Your task to perform on an android device: open a bookmark in the chrome app Image 0: 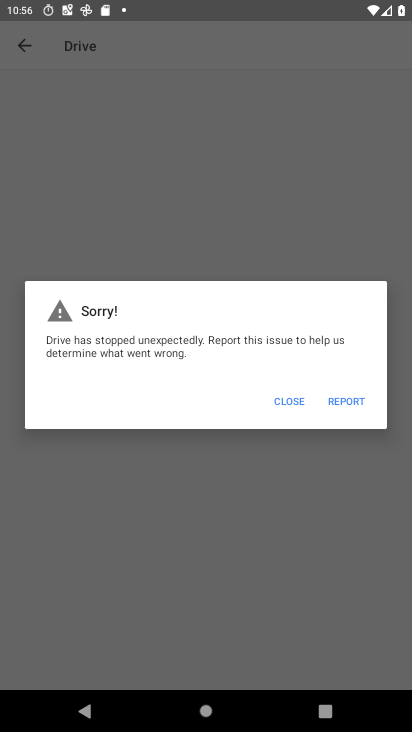
Step 0: drag from (221, 486) to (147, 116)
Your task to perform on an android device: open a bookmark in the chrome app Image 1: 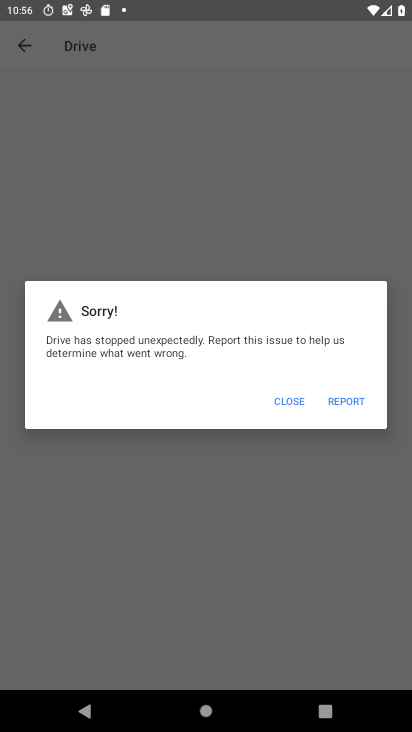
Step 1: click (284, 404)
Your task to perform on an android device: open a bookmark in the chrome app Image 2: 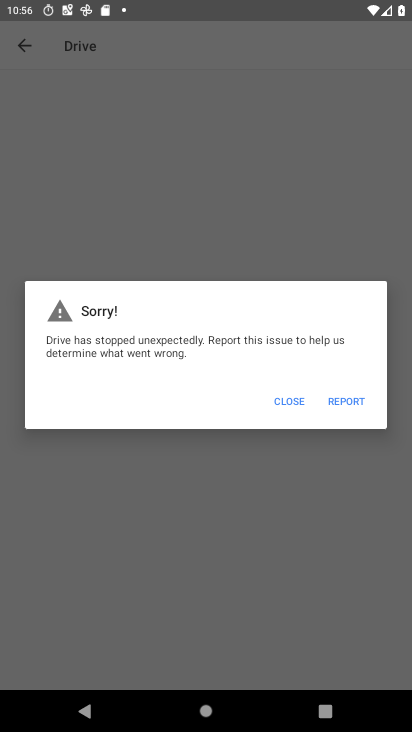
Step 2: click (287, 402)
Your task to perform on an android device: open a bookmark in the chrome app Image 3: 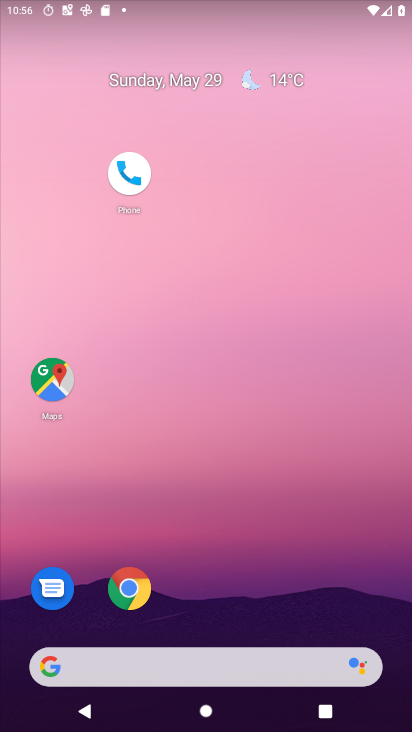
Step 3: drag from (274, 685) to (159, 188)
Your task to perform on an android device: open a bookmark in the chrome app Image 4: 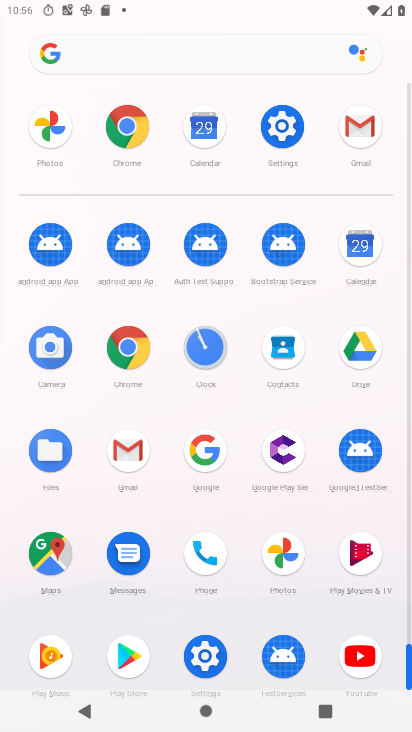
Step 4: click (114, 142)
Your task to perform on an android device: open a bookmark in the chrome app Image 5: 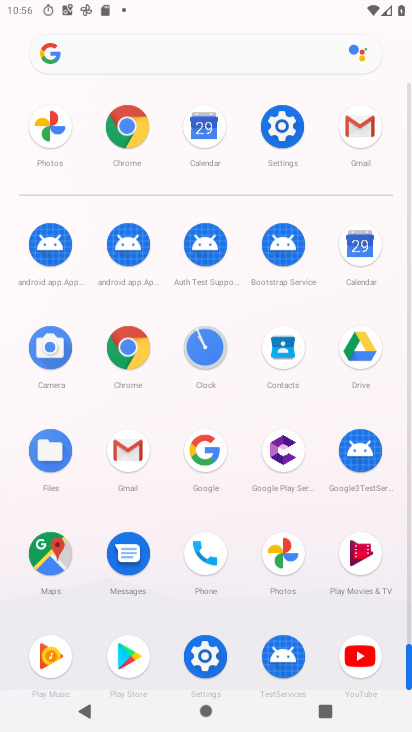
Step 5: click (120, 126)
Your task to perform on an android device: open a bookmark in the chrome app Image 6: 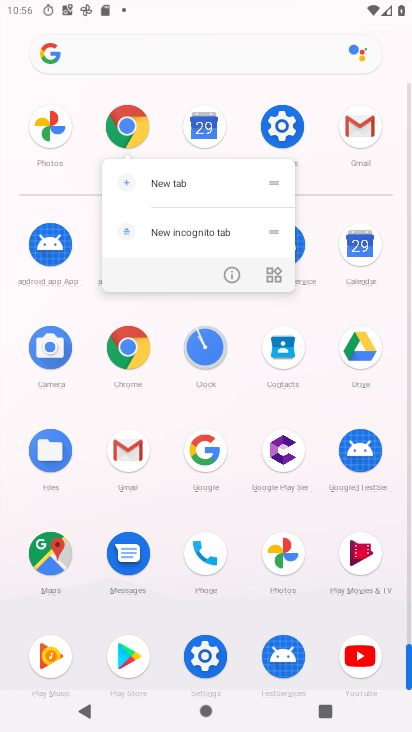
Step 6: click (131, 138)
Your task to perform on an android device: open a bookmark in the chrome app Image 7: 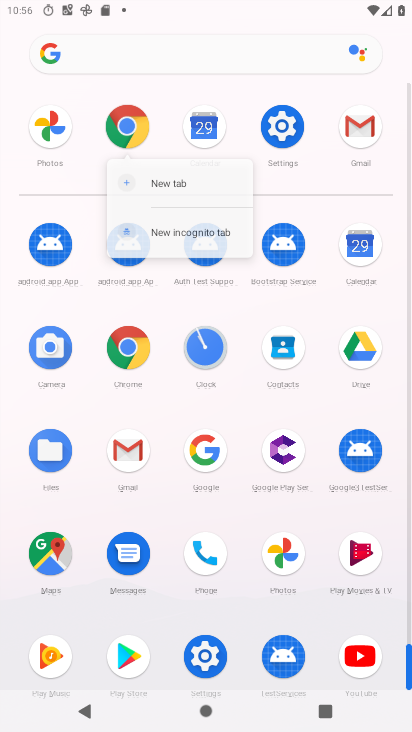
Step 7: click (131, 138)
Your task to perform on an android device: open a bookmark in the chrome app Image 8: 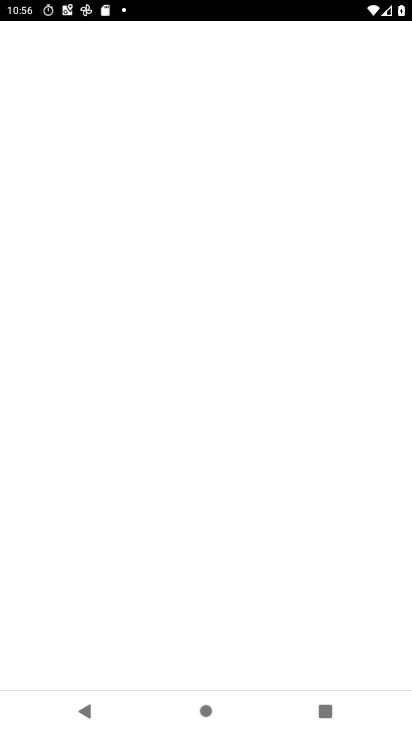
Step 8: click (131, 138)
Your task to perform on an android device: open a bookmark in the chrome app Image 9: 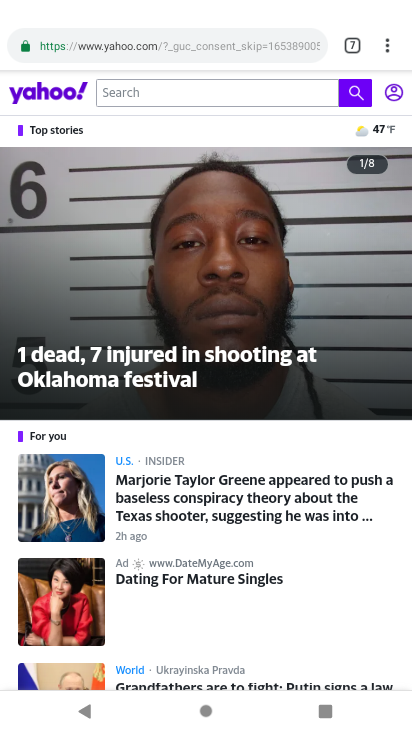
Step 9: click (132, 137)
Your task to perform on an android device: open a bookmark in the chrome app Image 10: 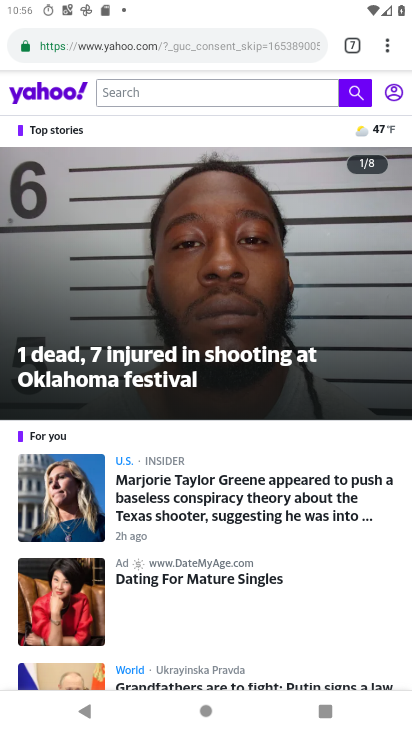
Step 10: drag from (388, 44) to (401, 270)
Your task to perform on an android device: open a bookmark in the chrome app Image 11: 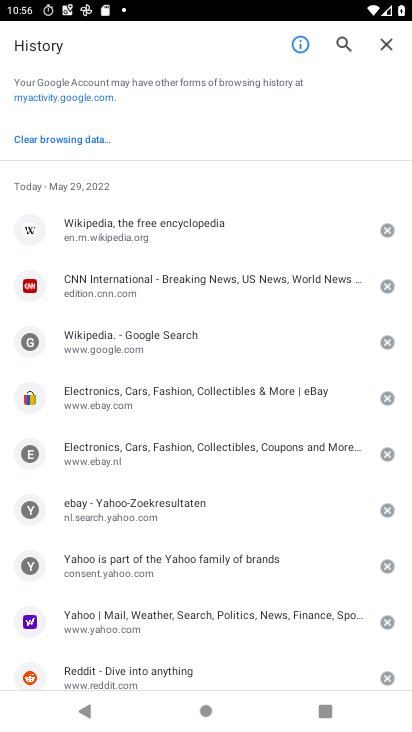
Step 11: press back button
Your task to perform on an android device: open a bookmark in the chrome app Image 12: 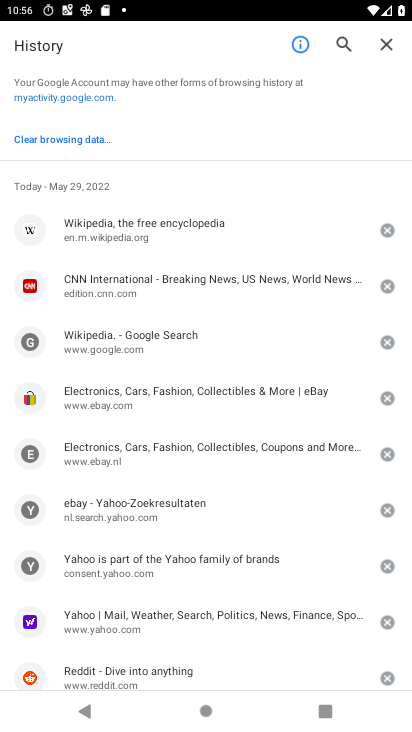
Step 12: press back button
Your task to perform on an android device: open a bookmark in the chrome app Image 13: 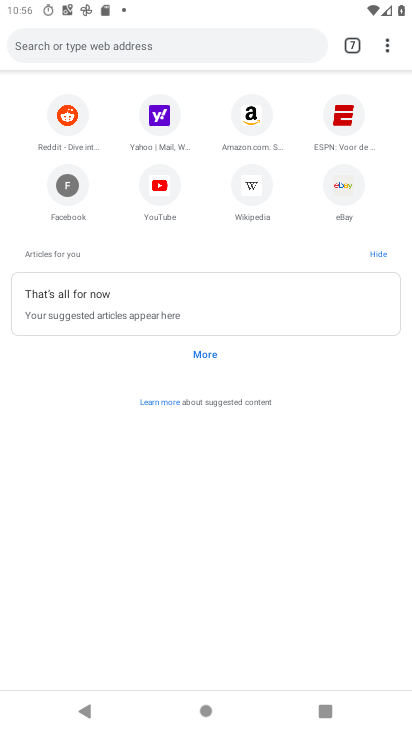
Step 13: drag from (391, 51) to (370, 151)
Your task to perform on an android device: open a bookmark in the chrome app Image 14: 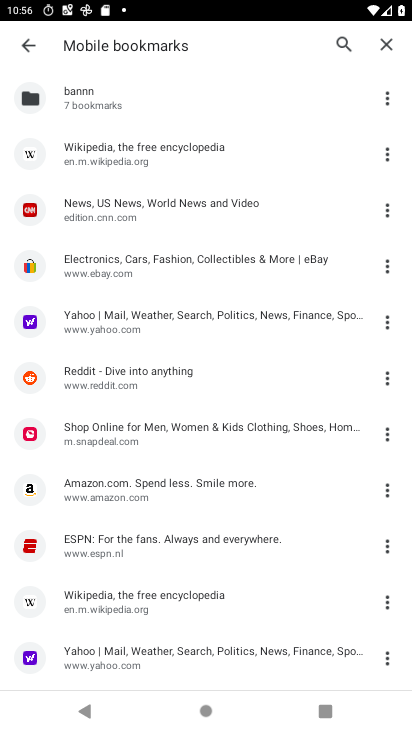
Step 14: click (229, 183)
Your task to perform on an android device: open a bookmark in the chrome app Image 15: 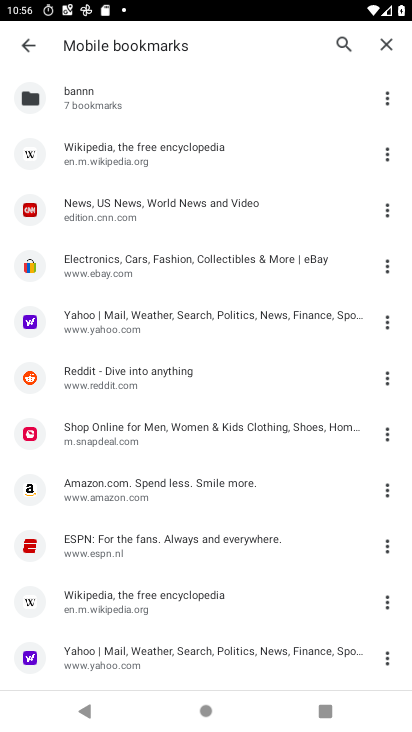
Step 15: click (225, 175)
Your task to perform on an android device: open a bookmark in the chrome app Image 16: 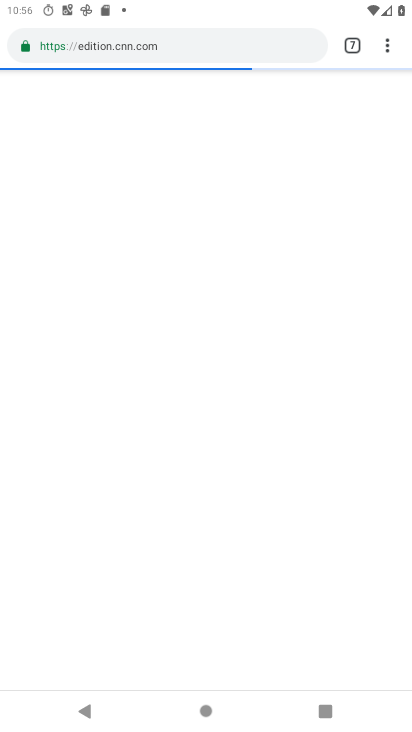
Step 16: click (230, 159)
Your task to perform on an android device: open a bookmark in the chrome app Image 17: 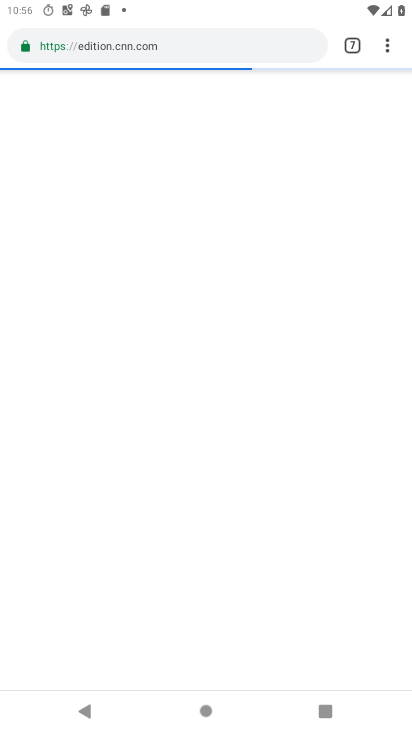
Step 17: task complete